Your task to perform on an android device: change text size in settings app Image 0: 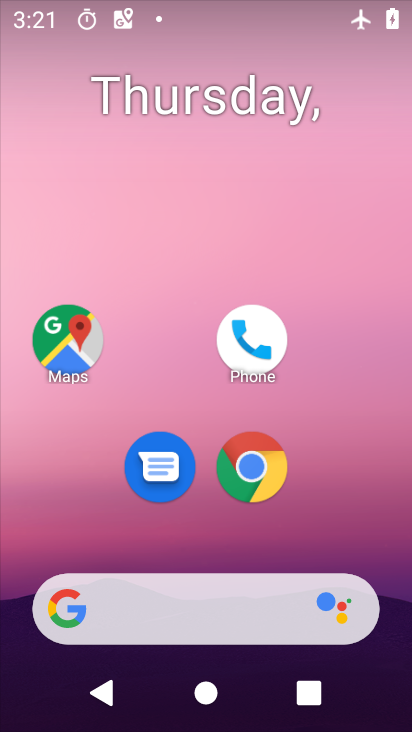
Step 0: drag from (203, 548) to (221, 157)
Your task to perform on an android device: change text size in settings app Image 1: 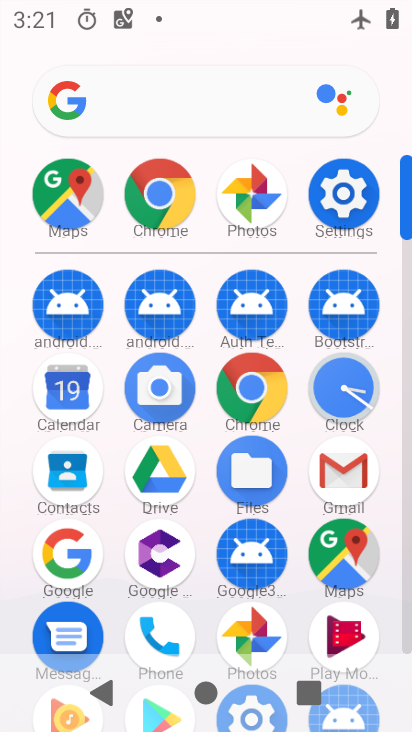
Step 1: click (370, 196)
Your task to perform on an android device: change text size in settings app Image 2: 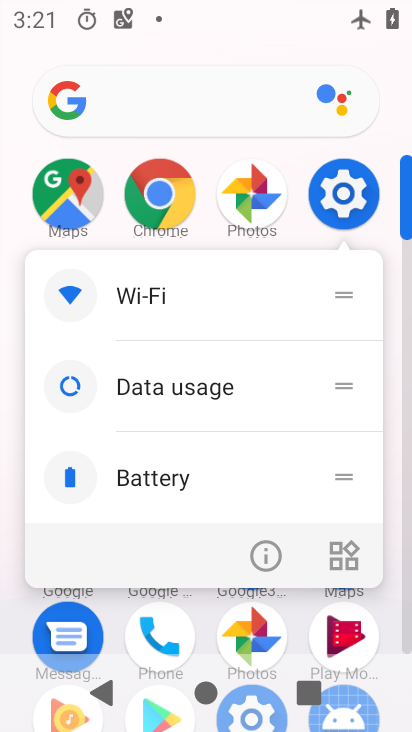
Step 2: click (255, 552)
Your task to perform on an android device: change text size in settings app Image 3: 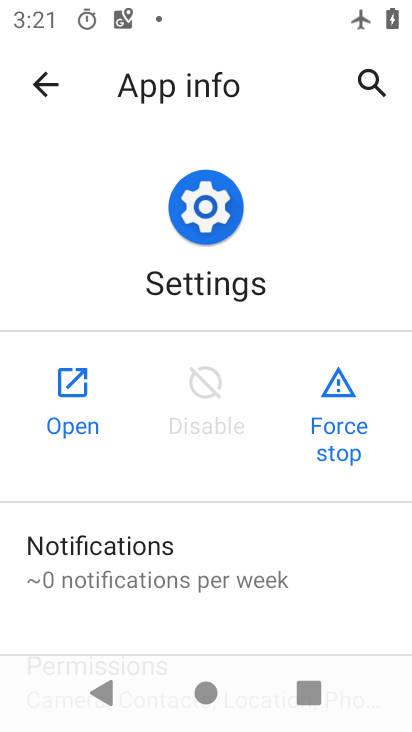
Step 3: click (61, 390)
Your task to perform on an android device: change text size in settings app Image 4: 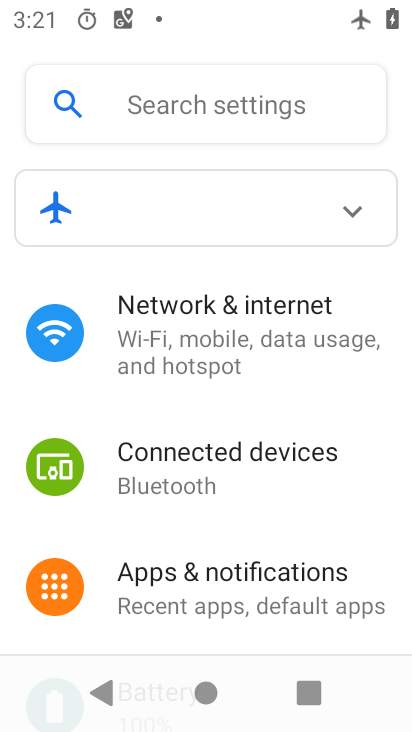
Step 4: drag from (195, 599) to (256, 345)
Your task to perform on an android device: change text size in settings app Image 5: 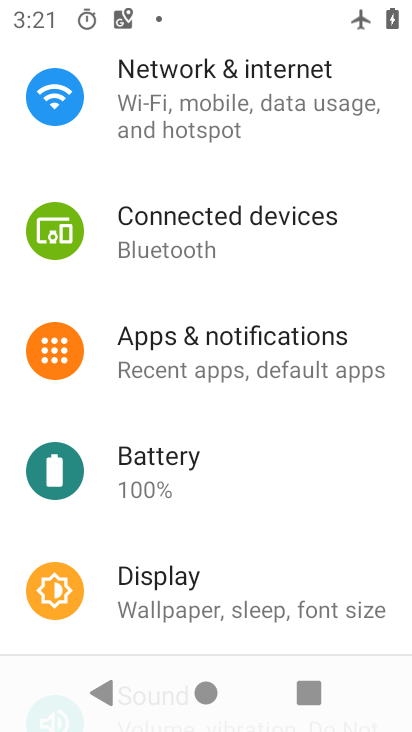
Step 5: drag from (209, 571) to (282, 89)
Your task to perform on an android device: change text size in settings app Image 6: 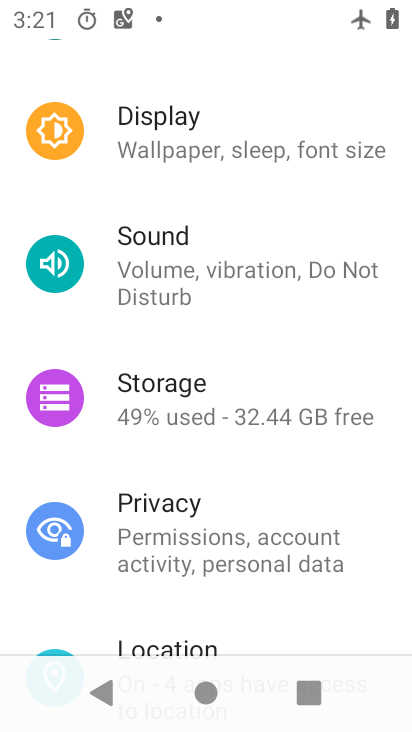
Step 6: drag from (233, 551) to (286, 110)
Your task to perform on an android device: change text size in settings app Image 7: 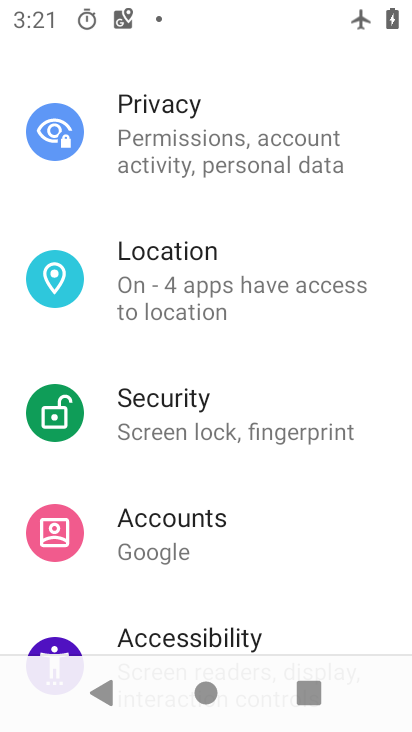
Step 7: drag from (216, 498) to (250, 180)
Your task to perform on an android device: change text size in settings app Image 8: 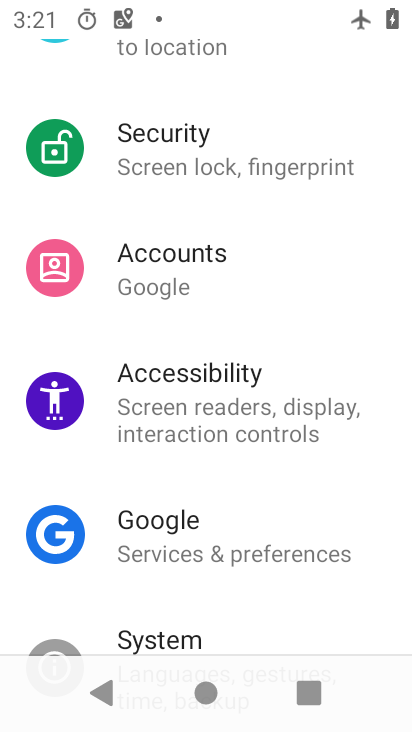
Step 8: drag from (247, 203) to (256, 705)
Your task to perform on an android device: change text size in settings app Image 9: 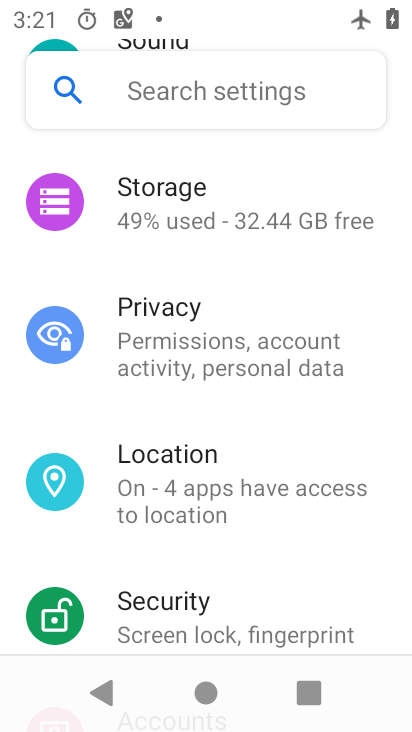
Step 9: drag from (229, 307) to (277, 729)
Your task to perform on an android device: change text size in settings app Image 10: 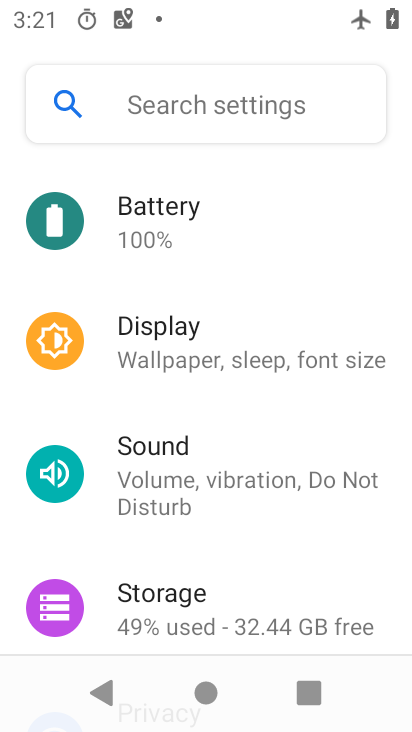
Step 10: click (198, 329)
Your task to perform on an android device: change text size in settings app Image 11: 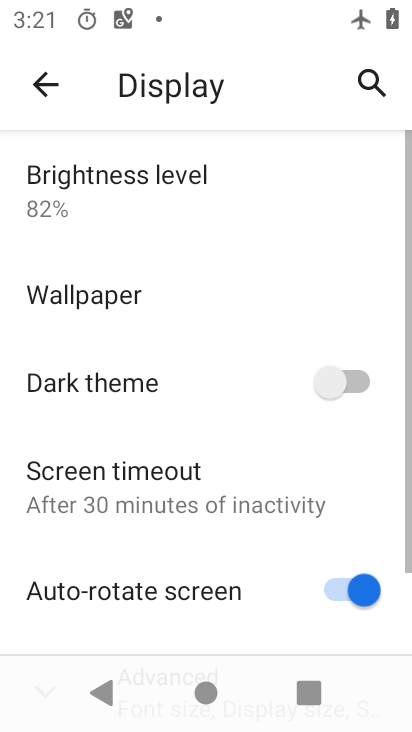
Step 11: drag from (215, 492) to (299, 214)
Your task to perform on an android device: change text size in settings app Image 12: 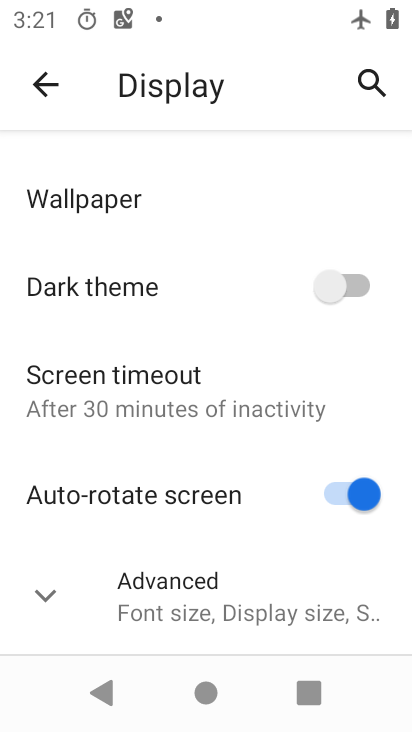
Step 12: click (161, 596)
Your task to perform on an android device: change text size in settings app Image 13: 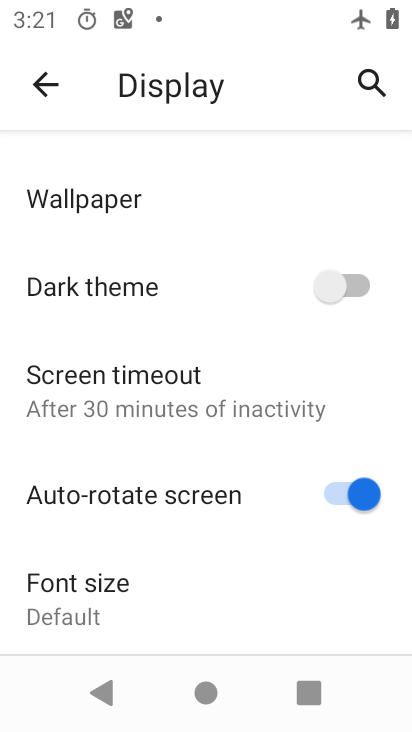
Step 13: click (124, 594)
Your task to perform on an android device: change text size in settings app Image 14: 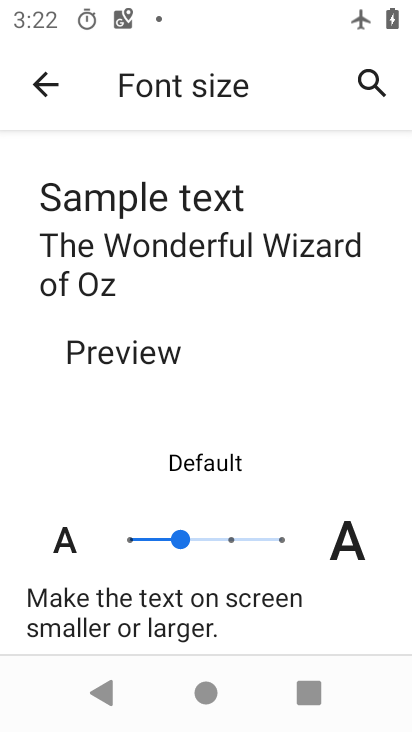
Step 14: click (225, 538)
Your task to perform on an android device: change text size in settings app Image 15: 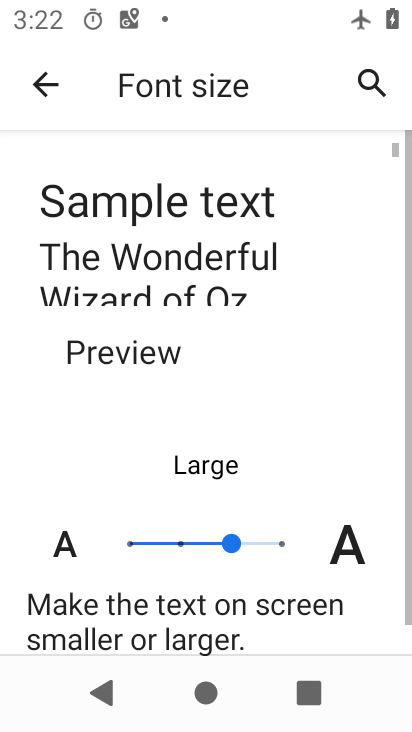
Step 15: task complete